Your task to perform on an android device: change the clock style Image 0: 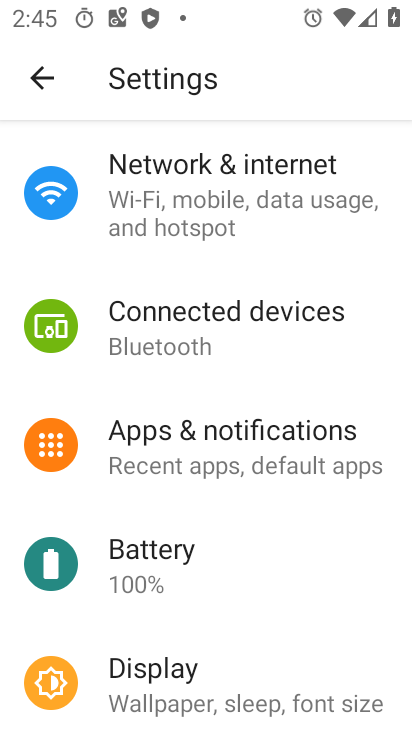
Step 0: press back button
Your task to perform on an android device: change the clock style Image 1: 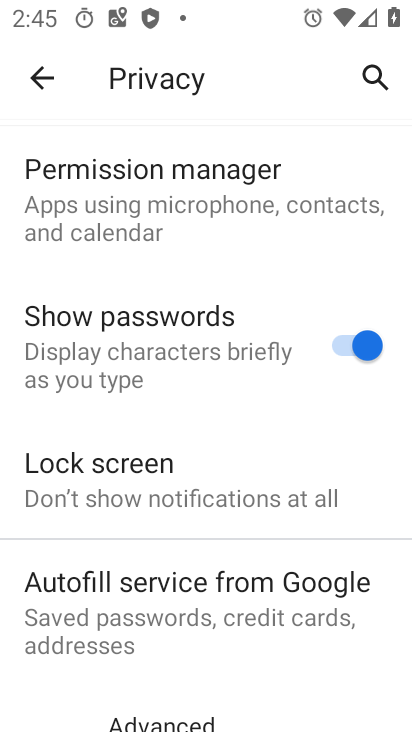
Step 1: press back button
Your task to perform on an android device: change the clock style Image 2: 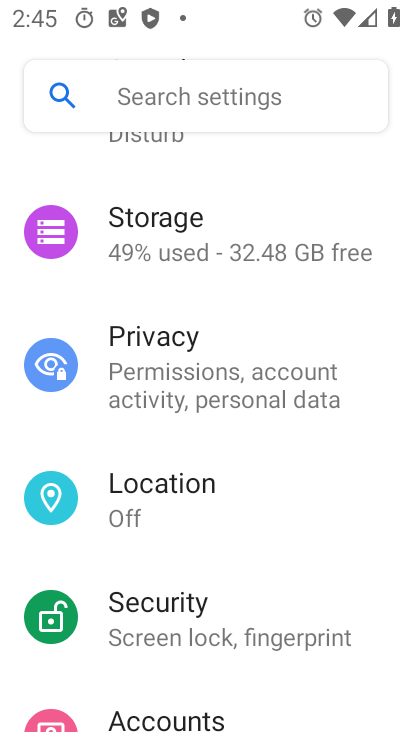
Step 2: press home button
Your task to perform on an android device: change the clock style Image 3: 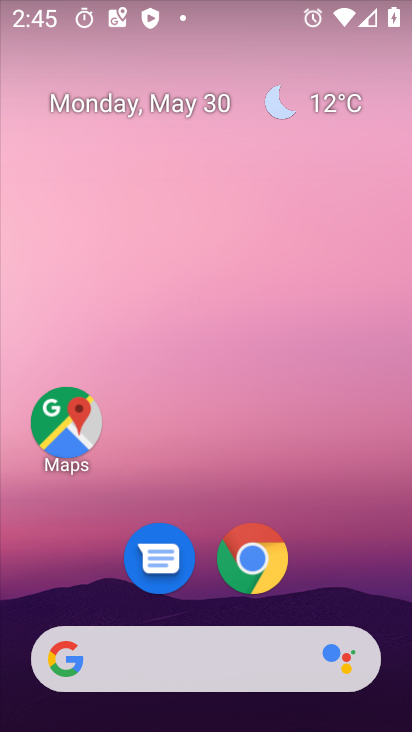
Step 3: drag from (223, 471) to (267, 45)
Your task to perform on an android device: change the clock style Image 4: 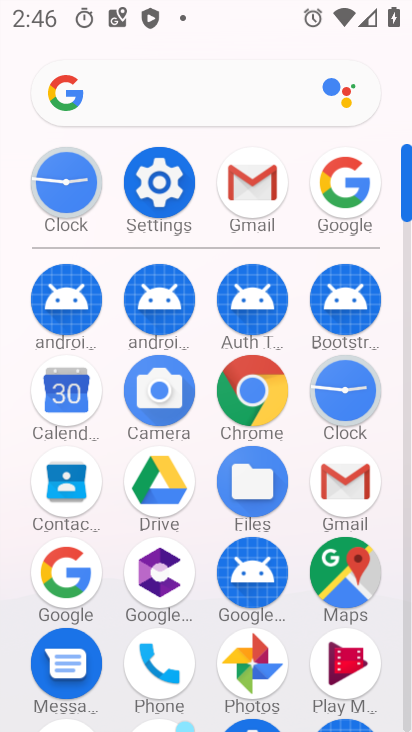
Step 4: click (359, 389)
Your task to perform on an android device: change the clock style Image 5: 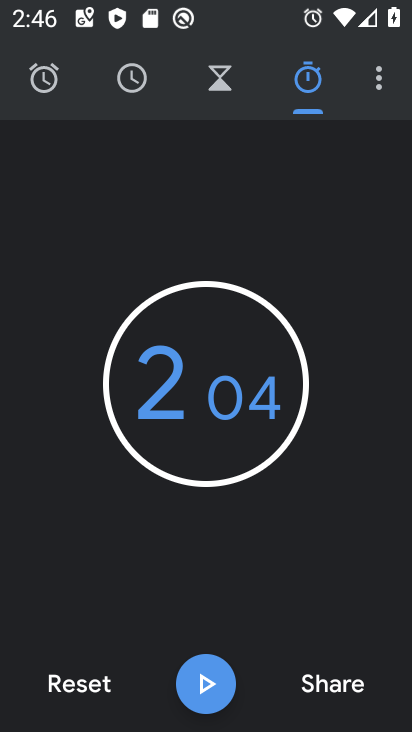
Step 5: click (376, 72)
Your task to perform on an android device: change the clock style Image 6: 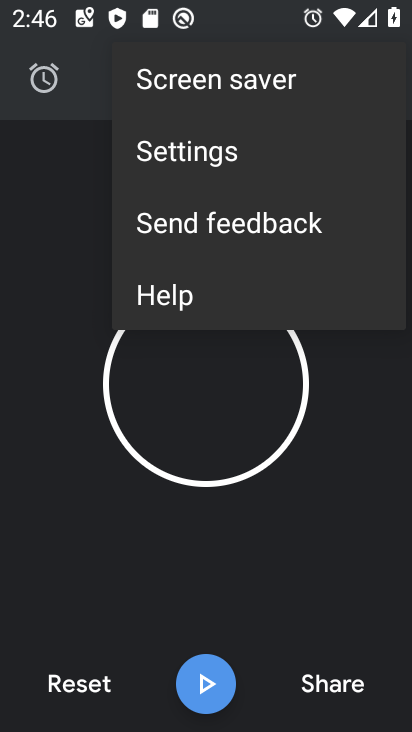
Step 6: click (235, 174)
Your task to perform on an android device: change the clock style Image 7: 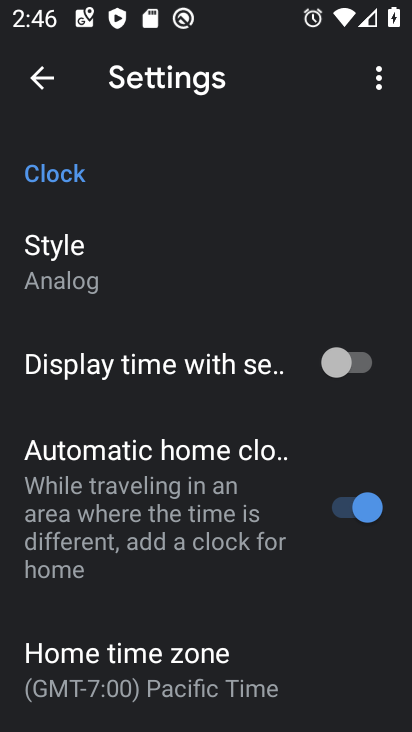
Step 7: click (112, 257)
Your task to perform on an android device: change the clock style Image 8: 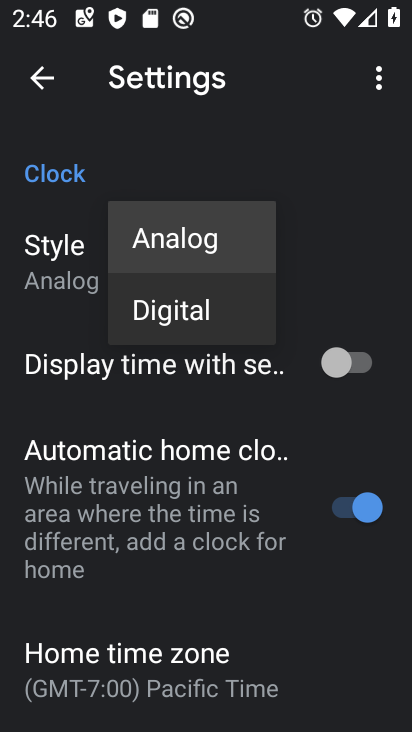
Step 8: click (158, 311)
Your task to perform on an android device: change the clock style Image 9: 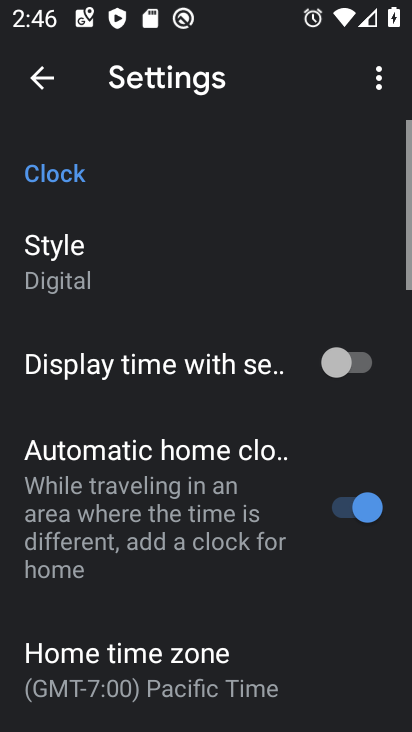
Step 9: task complete